Your task to perform on an android device: Go to sound settings Image 0: 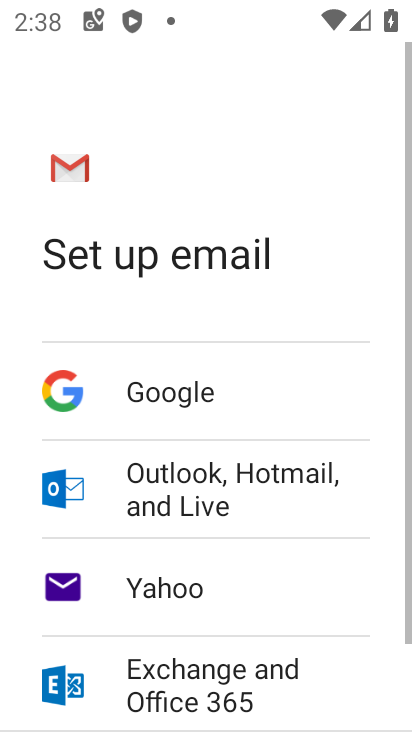
Step 0: press home button
Your task to perform on an android device: Go to sound settings Image 1: 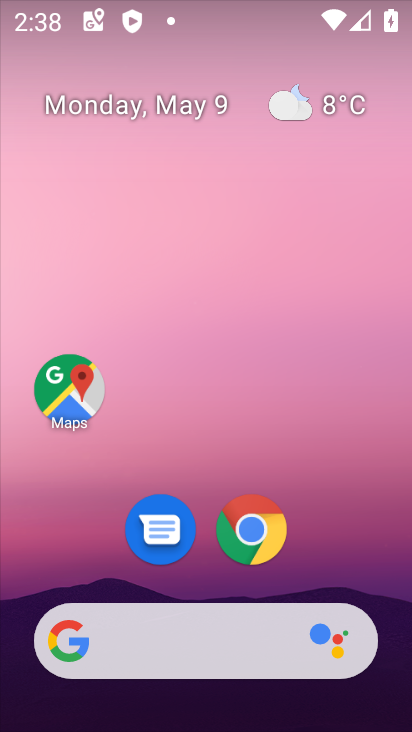
Step 1: drag from (315, 711) to (244, 250)
Your task to perform on an android device: Go to sound settings Image 2: 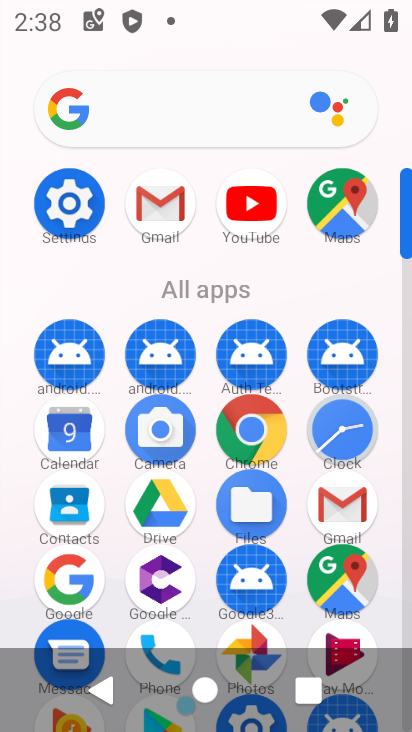
Step 2: click (75, 206)
Your task to perform on an android device: Go to sound settings Image 3: 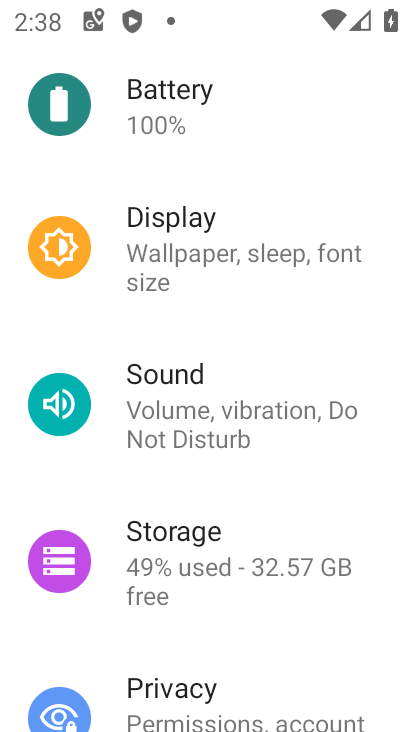
Step 3: click (225, 416)
Your task to perform on an android device: Go to sound settings Image 4: 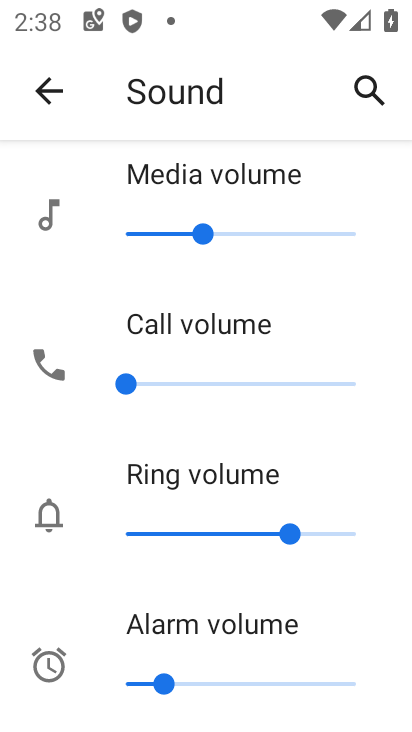
Step 4: task complete